Your task to perform on an android device: toggle notification dots Image 0: 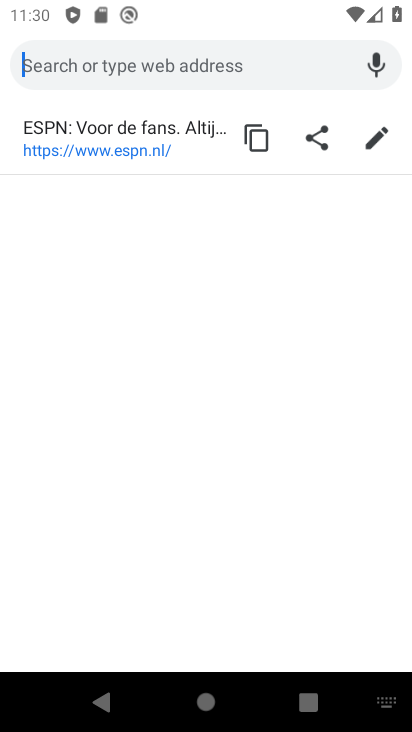
Step 0: press home button
Your task to perform on an android device: toggle notification dots Image 1: 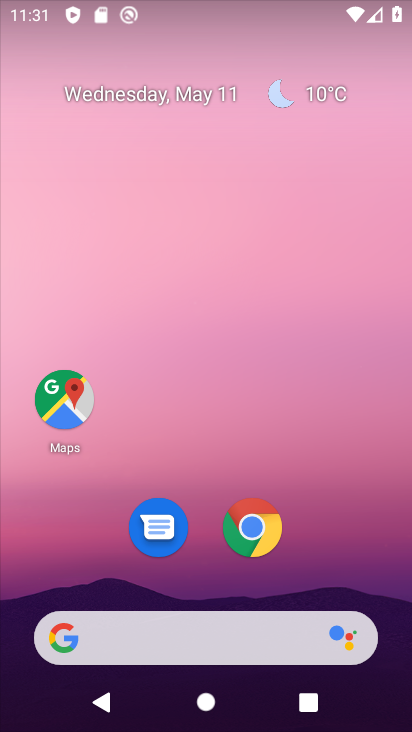
Step 1: drag from (213, 586) to (247, 7)
Your task to perform on an android device: toggle notification dots Image 2: 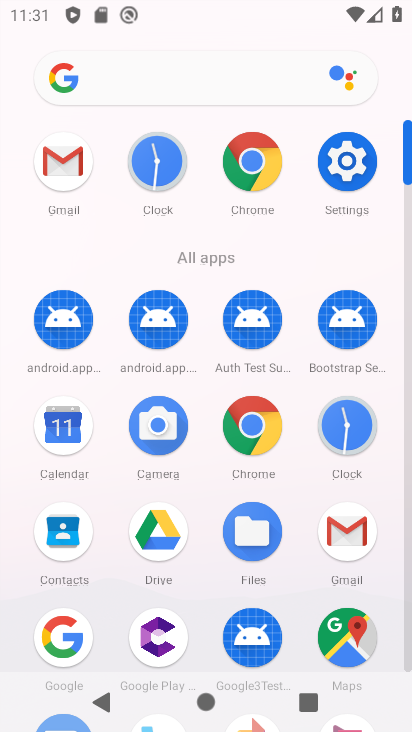
Step 2: click (352, 198)
Your task to perform on an android device: toggle notification dots Image 3: 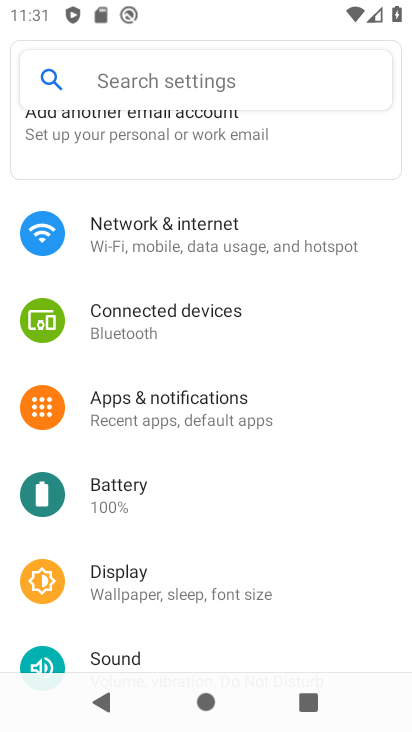
Step 3: click (201, 429)
Your task to perform on an android device: toggle notification dots Image 4: 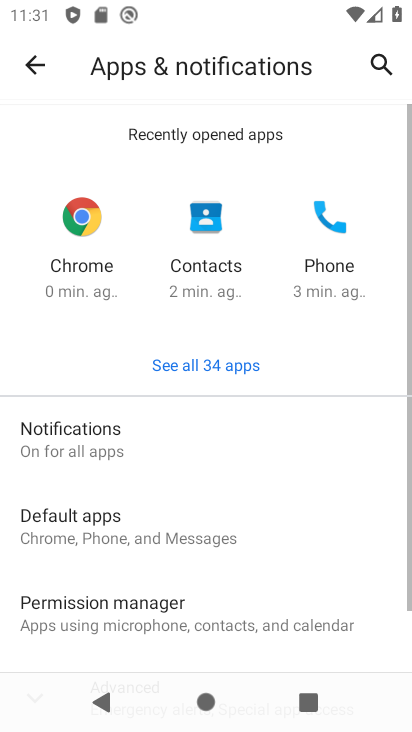
Step 4: drag from (198, 539) to (252, 149)
Your task to perform on an android device: toggle notification dots Image 5: 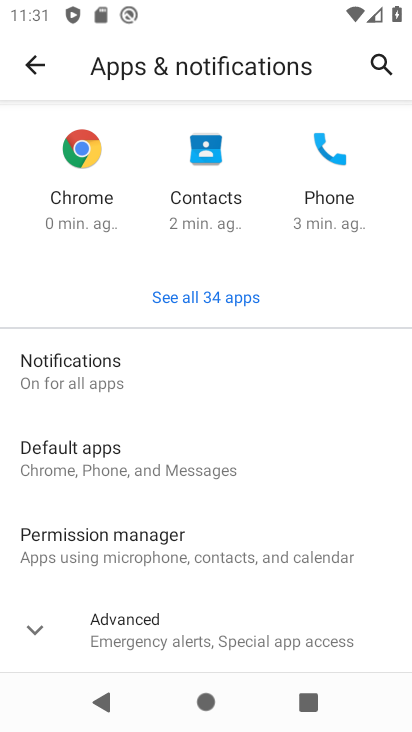
Step 5: click (138, 377)
Your task to perform on an android device: toggle notification dots Image 6: 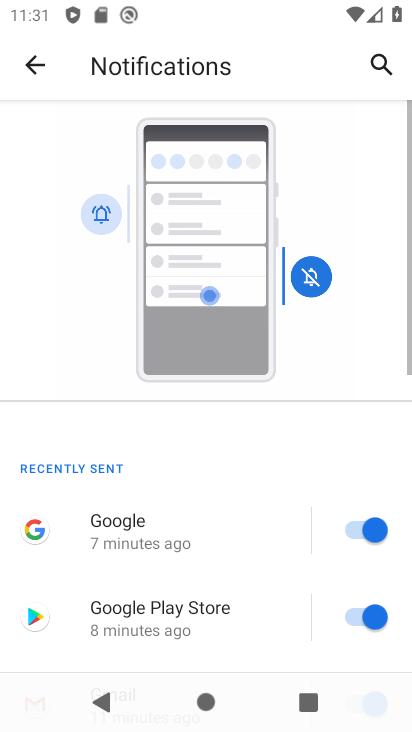
Step 6: drag from (206, 566) to (253, 196)
Your task to perform on an android device: toggle notification dots Image 7: 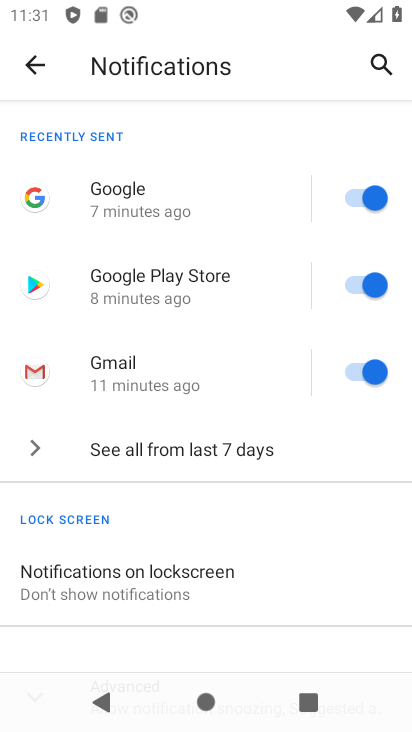
Step 7: drag from (240, 542) to (251, 128)
Your task to perform on an android device: toggle notification dots Image 8: 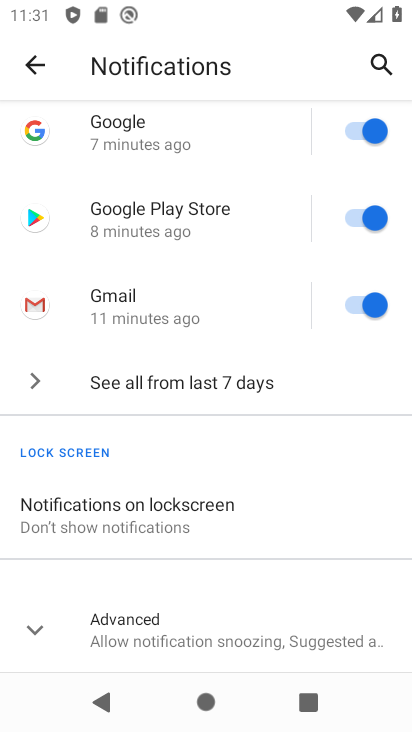
Step 8: click (113, 624)
Your task to perform on an android device: toggle notification dots Image 9: 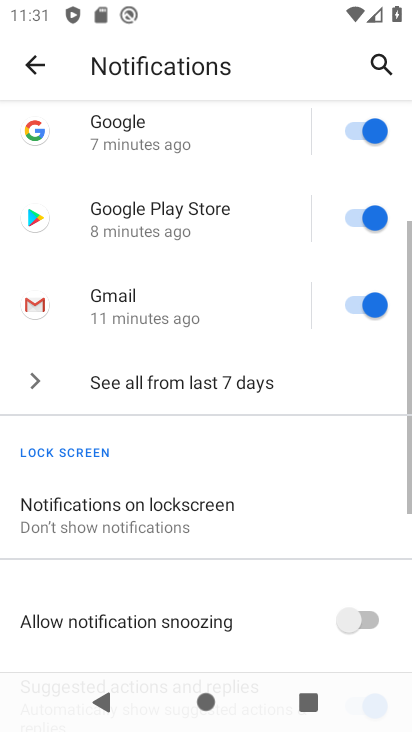
Step 9: drag from (201, 625) to (289, 160)
Your task to perform on an android device: toggle notification dots Image 10: 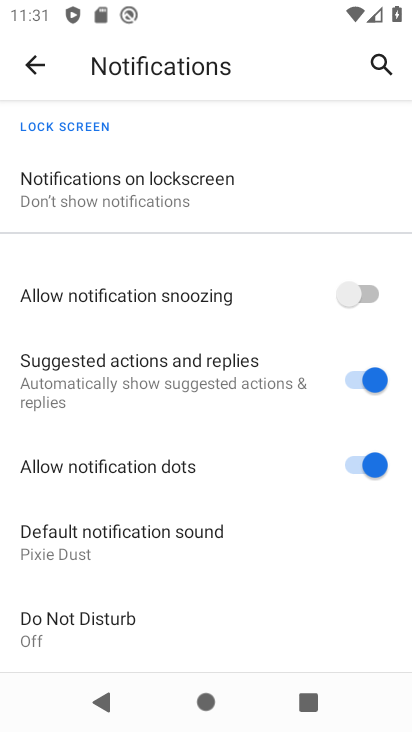
Step 10: click (358, 470)
Your task to perform on an android device: toggle notification dots Image 11: 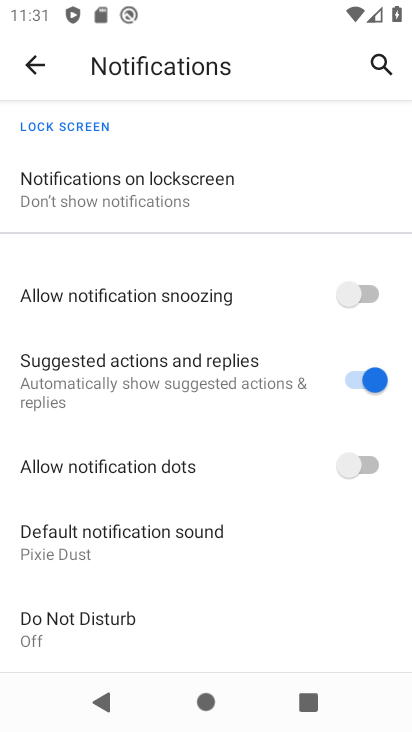
Step 11: task complete